Your task to perform on an android device: change alarm snooze length Image 0: 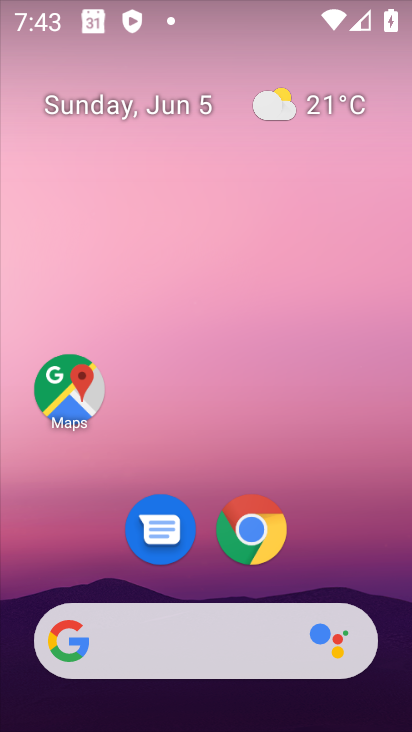
Step 0: drag from (239, 719) to (226, 19)
Your task to perform on an android device: change alarm snooze length Image 1: 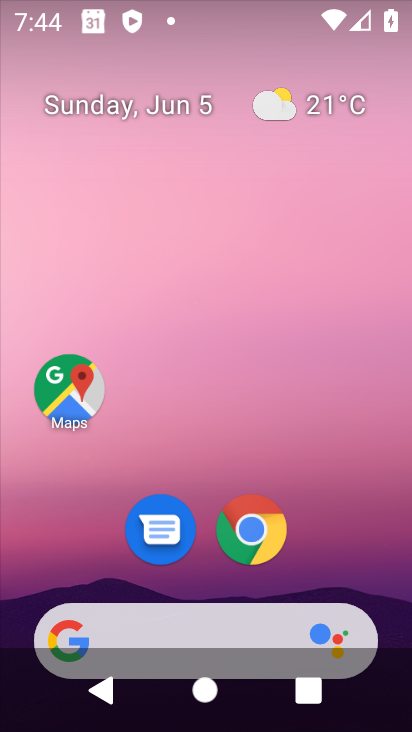
Step 1: drag from (249, 642) to (342, 27)
Your task to perform on an android device: change alarm snooze length Image 2: 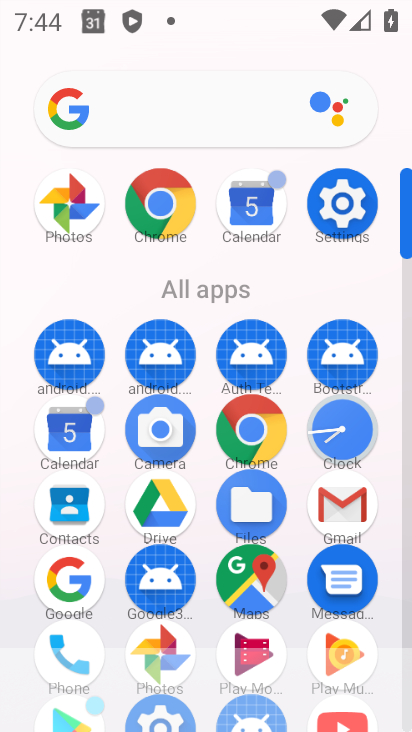
Step 2: click (345, 436)
Your task to perform on an android device: change alarm snooze length Image 3: 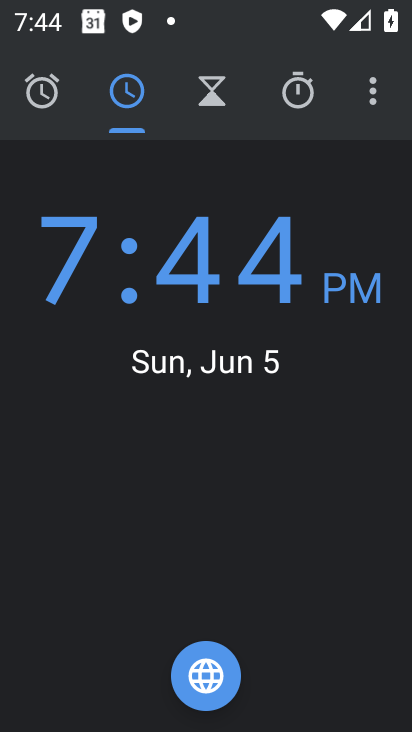
Step 3: click (362, 97)
Your task to perform on an android device: change alarm snooze length Image 4: 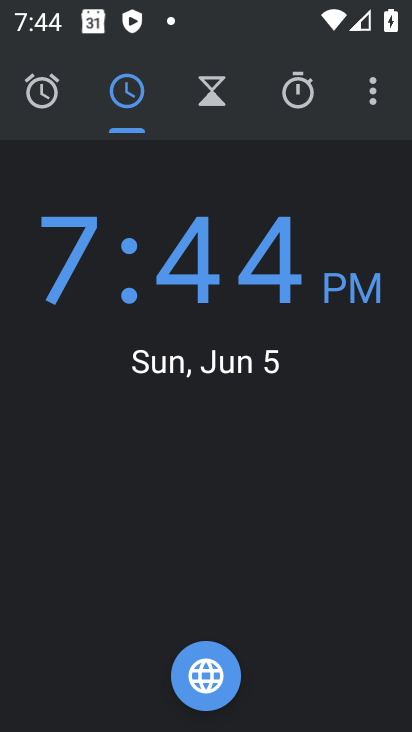
Step 4: click (370, 93)
Your task to perform on an android device: change alarm snooze length Image 5: 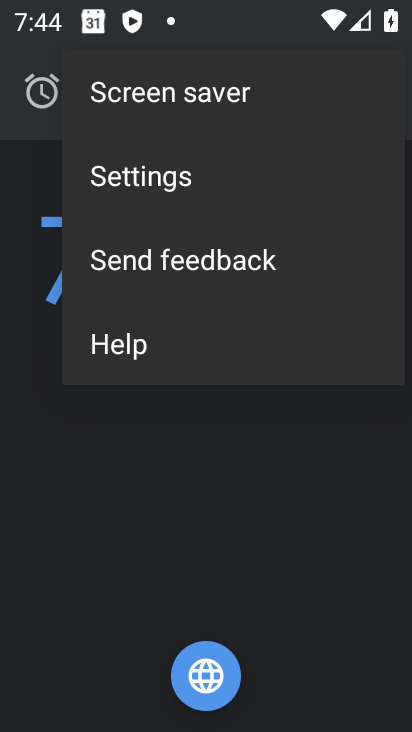
Step 5: click (193, 188)
Your task to perform on an android device: change alarm snooze length Image 6: 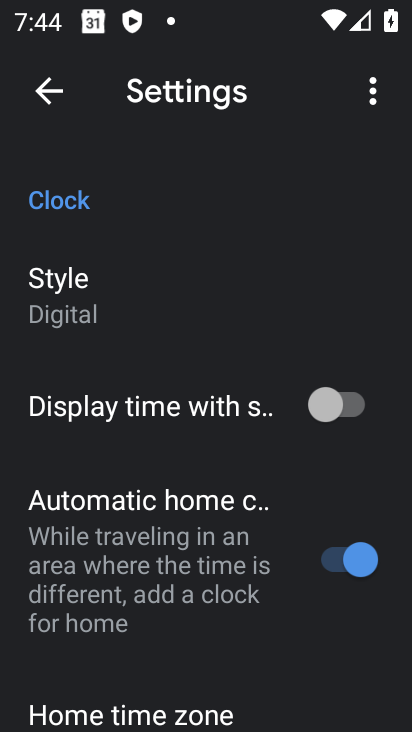
Step 6: drag from (186, 620) to (282, 0)
Your task to perform on an android device: change alarm snooze length Image 7: 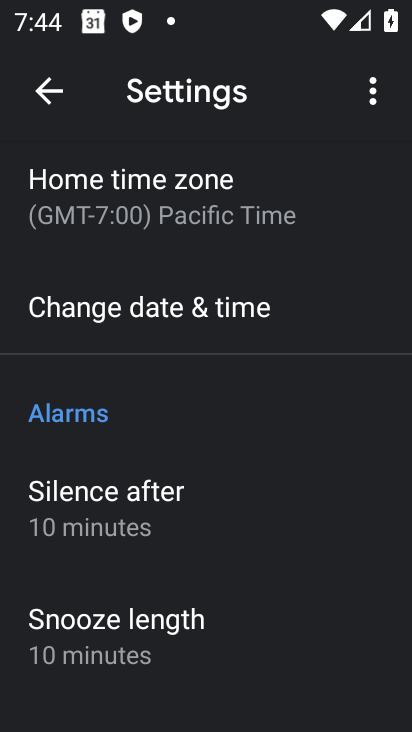
Step 7: click (158, 626)
Your task to perform on an android device: change alarm snooze length Image 8: 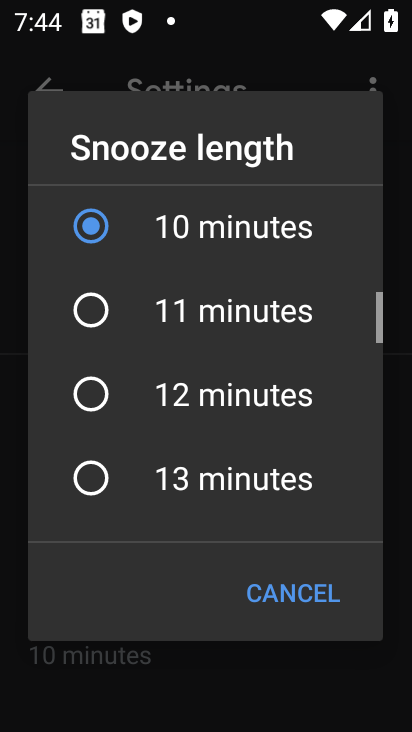
Step 8: click (241, 409)
Your task to perform on an android device: change alarm snooze length Image 9: 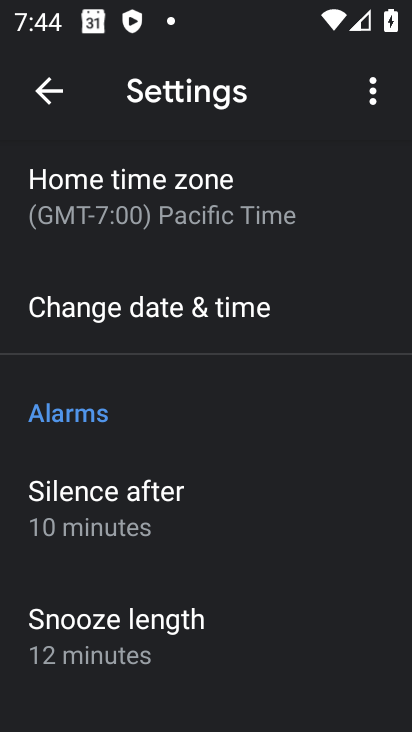
Step 9: task complete